Your task to perform on an android device: Open sound settings Image 0: 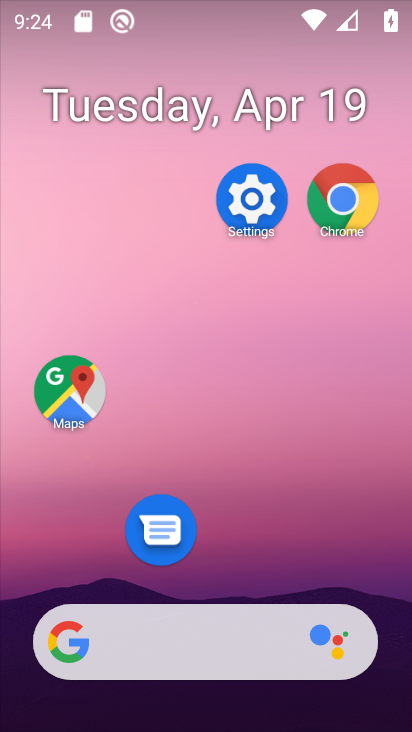
Step 0: click (235, 42)
Your task to perform on an android device: Open sound settings Image 1: 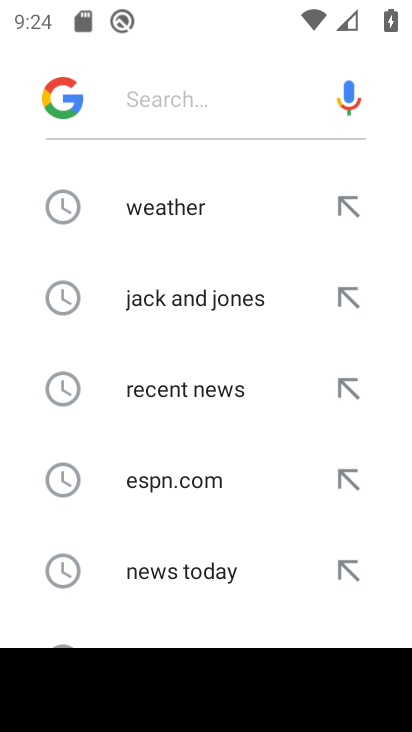
Step 1: press home button
Your task to perform on an android device: Open sound settings Image 2: 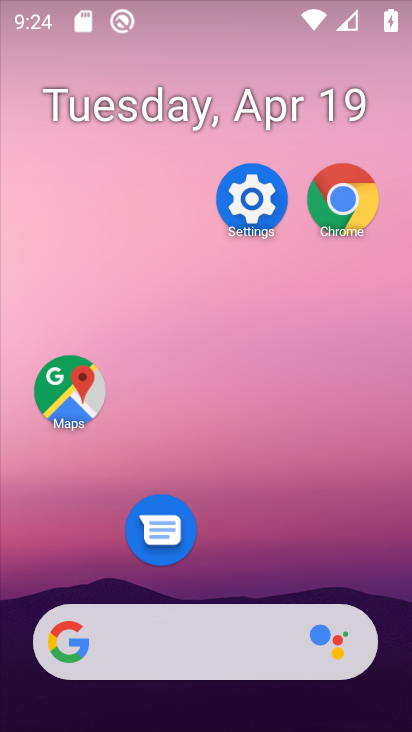
Step 2: drag from (233, 380) to (207, 45)
Your task to perform on an android device: Open sound settings Image 3: 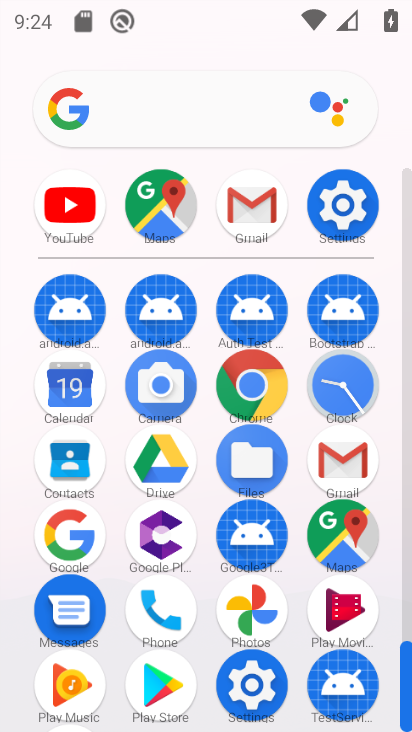
Step 3: click (261, 677)
Your task to perform on an android device: Open sound settings Image 4: 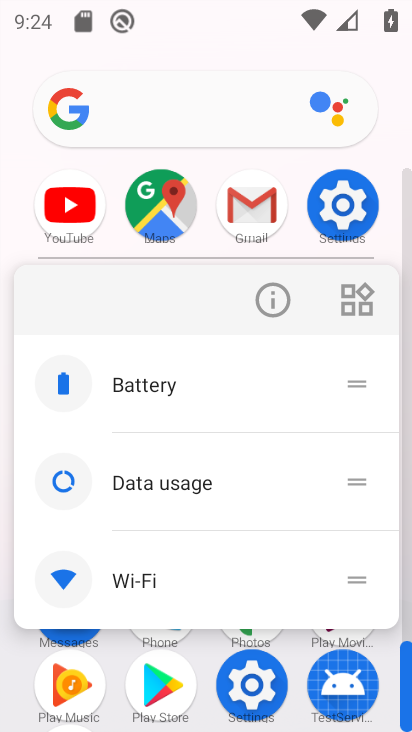
Step 4: click (271, 282)
Your task to perform on an android device: Open sound settings Image 5: 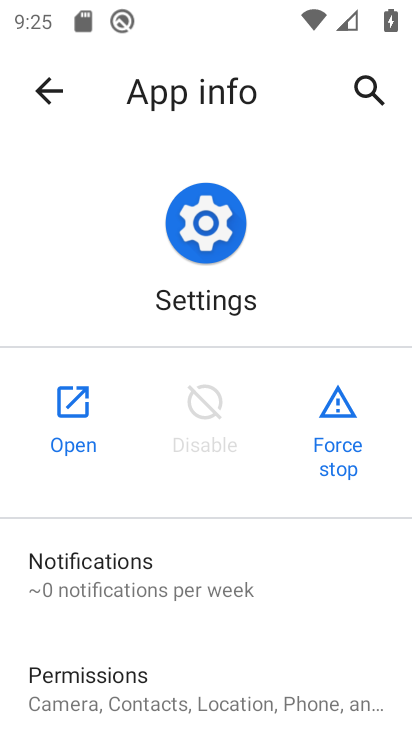
Step 5: click (57, 408)
Your task to perform on an android device: Open sound settings Image 6: 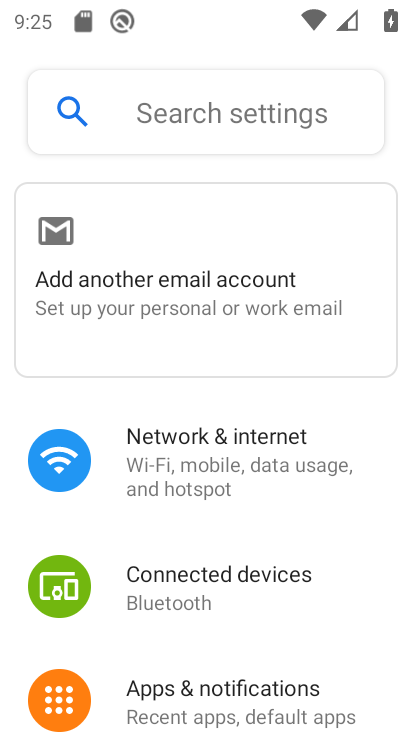
Step 6: drag from (277, 690) to (332, 109)
Your task to perform on an android device: Open sound settings Image 7: 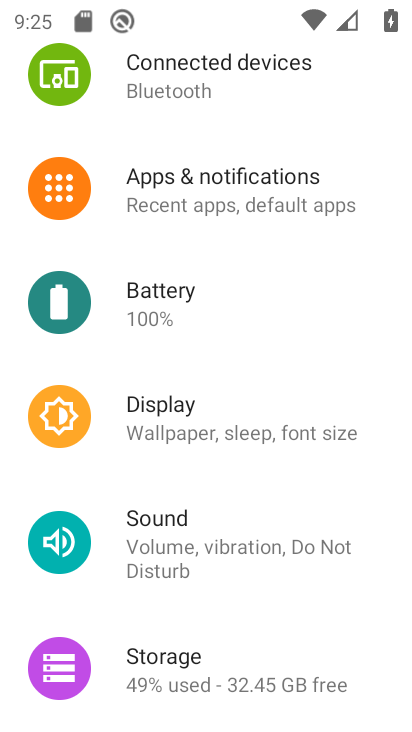
Step 7: click (193, 513)
Your task to perform on an android device: Open sound settings Image 8: 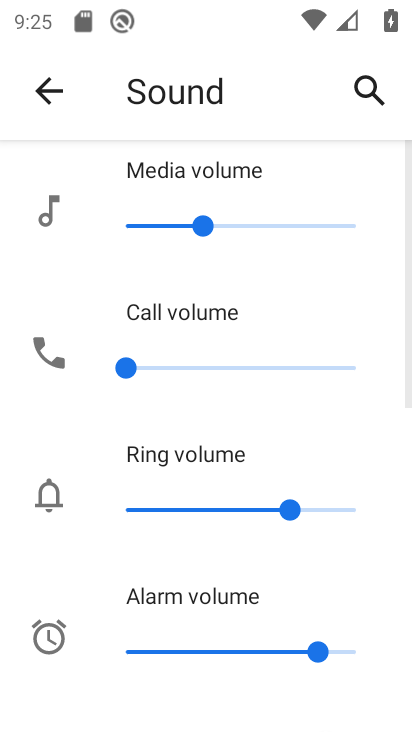
Step 8: task complete